Your task to perform on an android device: make emails show in primary in the gmail app Image 0: 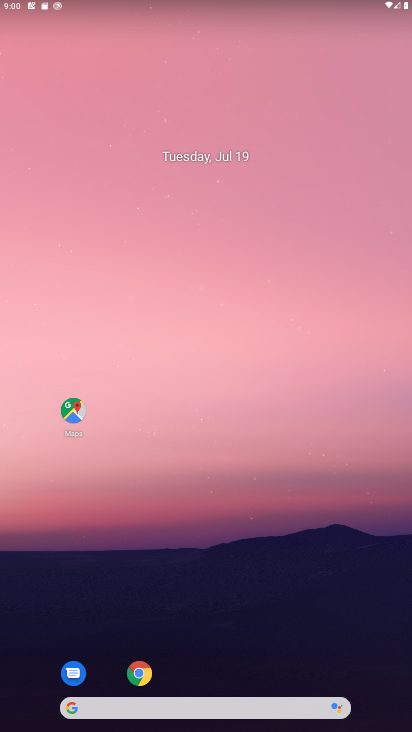
Step 0: drag from (358, 670) to (347, 420)
Your task to perform on an android device: make emails show in primary in the gmail app Image 1: 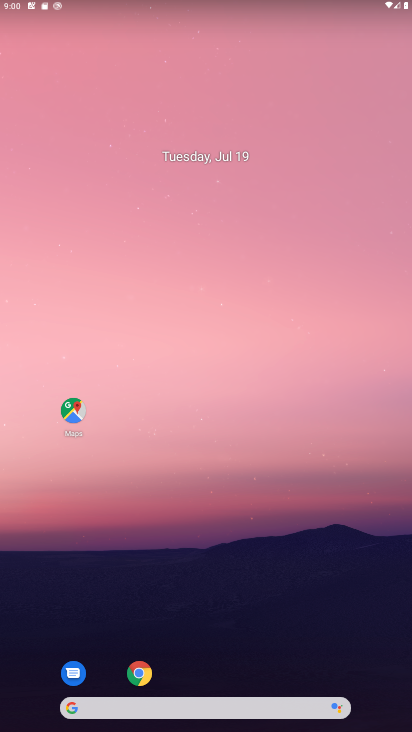
Step 1: drag from (323, 667) to (287, 240)
Your task to perform on an android device: make emails show in primary in the gmail app Image 2: 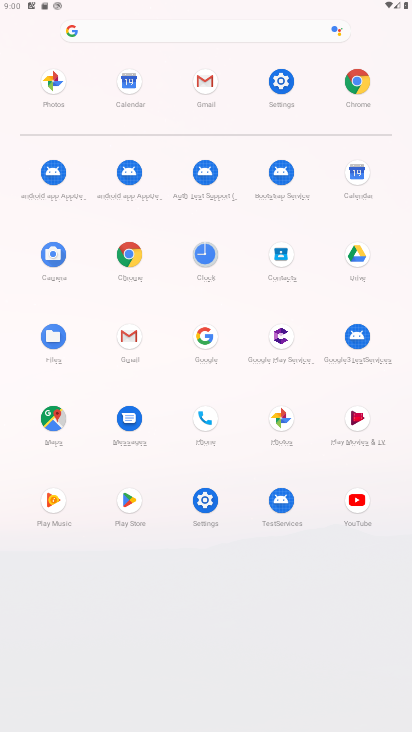
Step 2: click (128, 336)
Your task to perform on an android device: make emails show in primary in the gmail app Image 3: 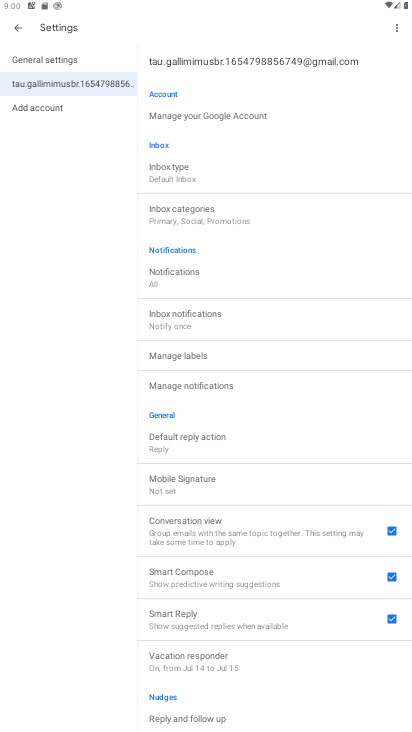
Step 3: click (173, 178)
Your task to perform on an android device: make emails show in primary in the gmail app Image 4: 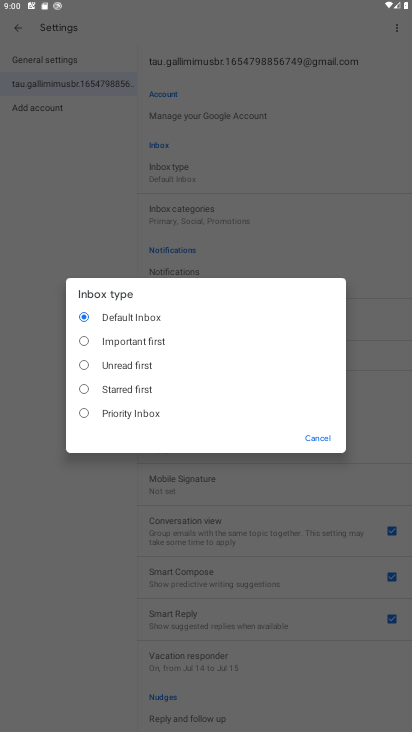
Step 4: click (328, 436)
Your task to perform on an android device: make emails show in primary in the gmail app Image 5: 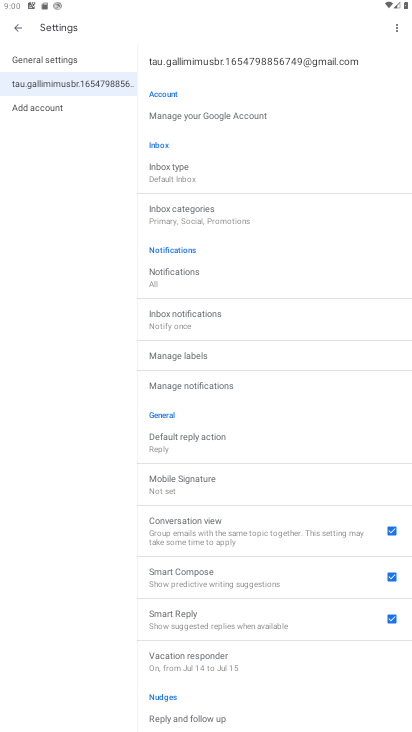
Step 5: click (189, 213)
Your task to perform on an android device: make emails show in primary in the gmail app Image 6: 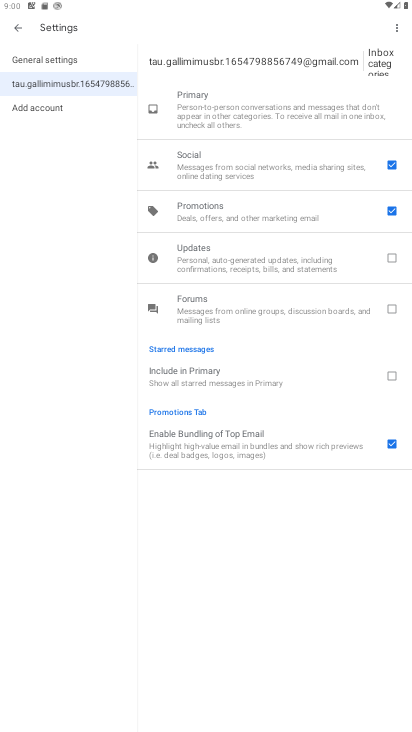
Step 6: click (389, 208)
Your task to perform on an android device: make emails show in primary in the gmail app Image 7: 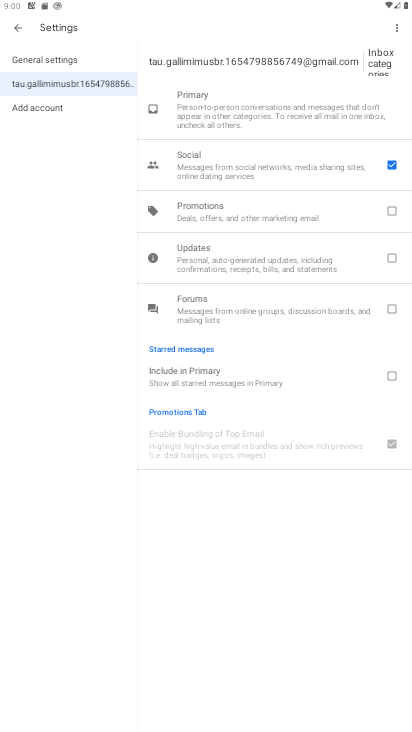
Step 7: click (393, 160)
Your task to perform on an android device: make emails show in primary in the gmail app Image 8: 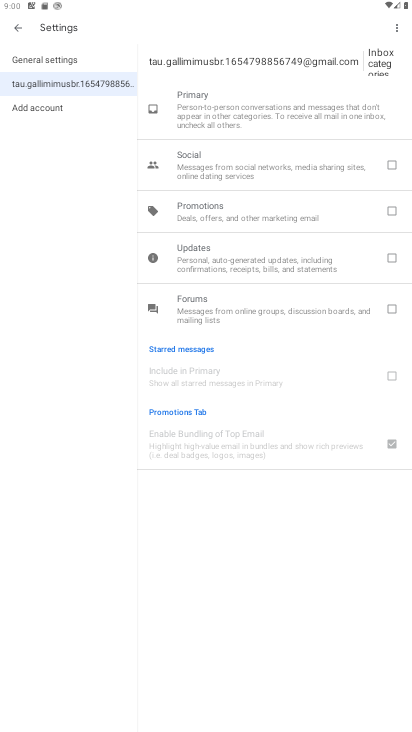
Step 8: task complete